Your task to perform on an android device: turn on bluetooth scan Image 0: 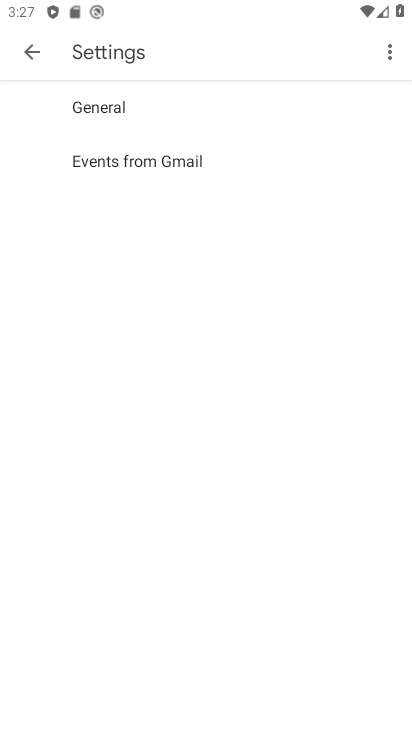
Step 0: press home button
Your task to perform on an android device: turn on bluetooth scan Image 1: 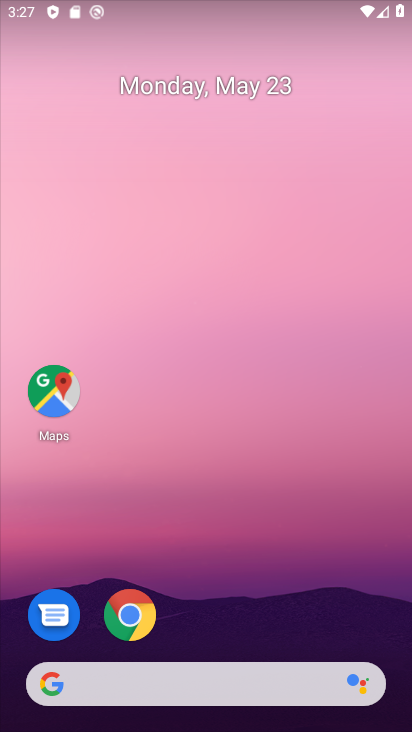
Step 1: drag from (348, 631) to (362, 192)
Your task to perform on an android device: turn on bluetooth scan Image 2: 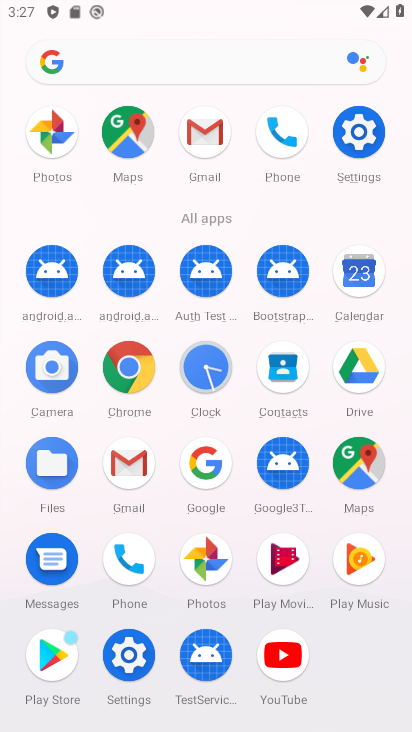
Step 2: click (359, 139)
Your task to perform on an android device: turn on bluetooth scan Image 3: 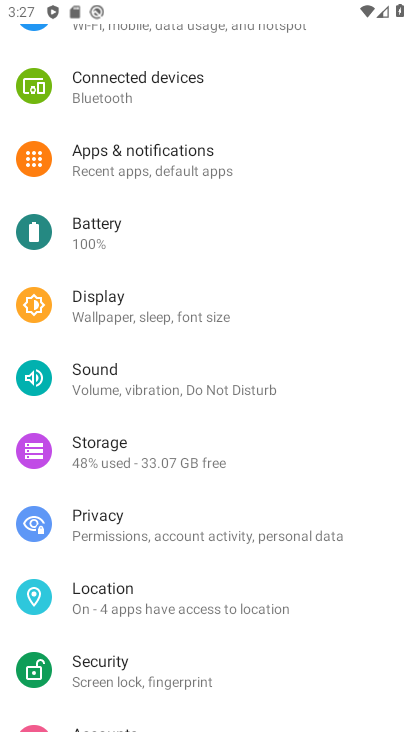
Step 3: drag from (352, 238) to (356, 383)
Your task to perform on an android device: turn on bluetooth scan Image 4: 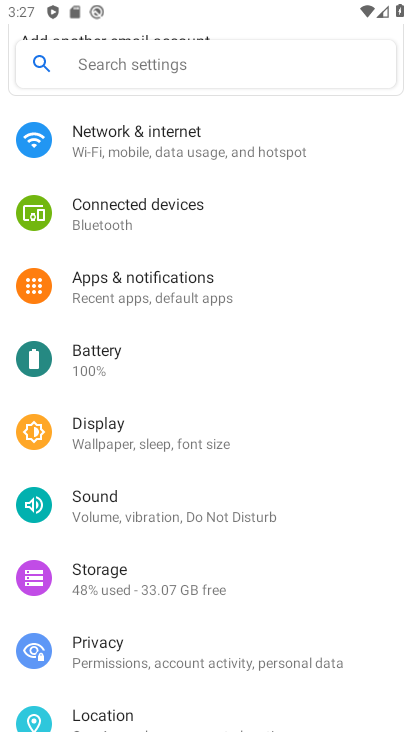
Step 4: drag from (359, 252) to (357, 422)
Your task to perform on an android device: turn on bluetooth scan Image 5: 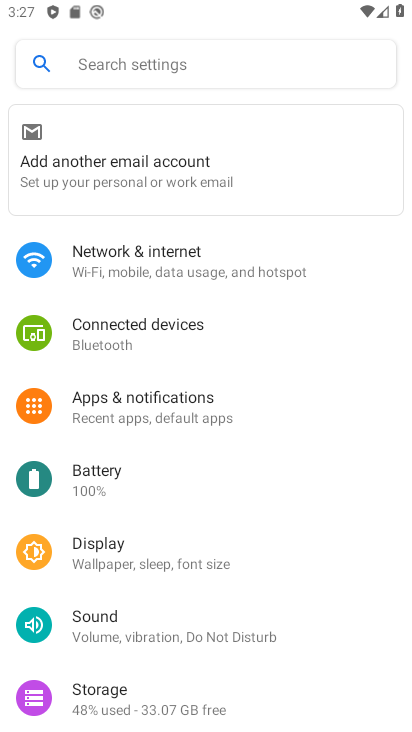
Step 5: drag from (366, 317) to (348, 490)
Your task to perform on an android device: turn on bluetooth scan Image 6: 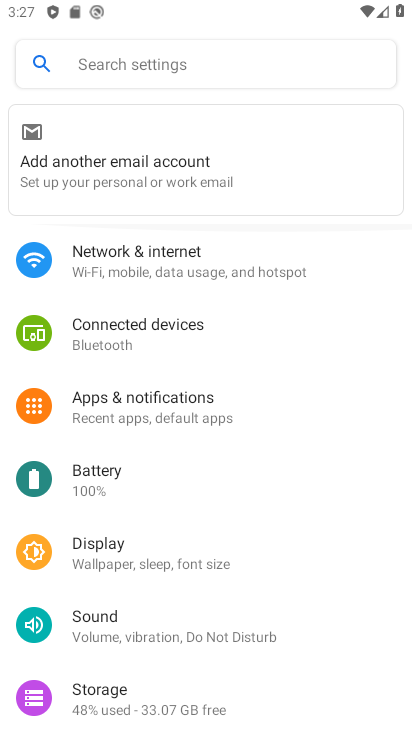
Step 6: drag from (377, 615) to (374, 479)
Your task to perform on an android device: turn on bluetooth scan Image 7: 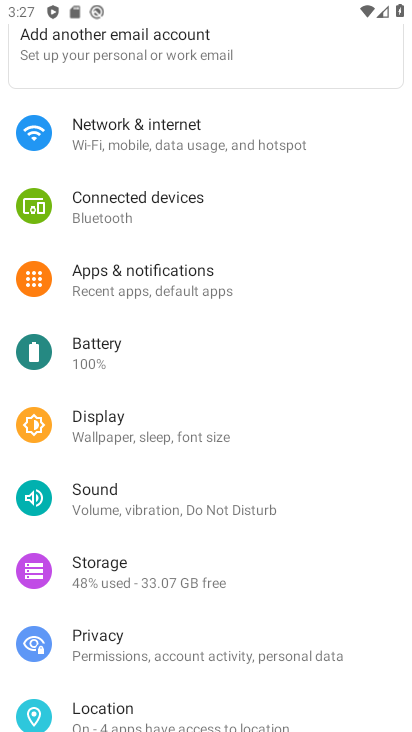
Step 7: drag from (369, 596) to (358, 454)
Your task to perform on an android device: turn on bluetooth scan Image 8: 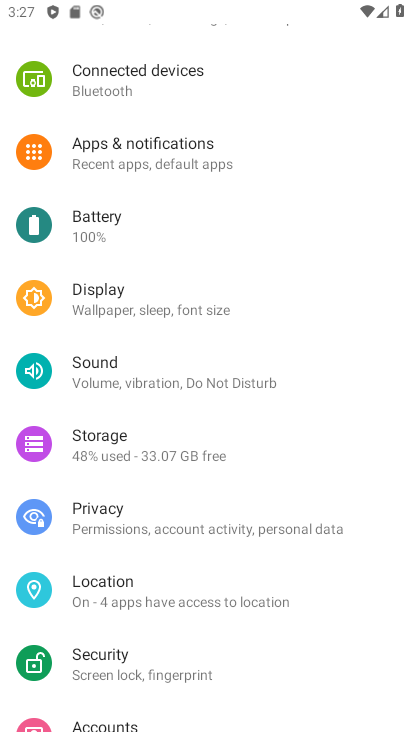
Step 8: drag from (350, 624) to (357, 491)
Your task to perform on an android device: turn on bluetooth scan Image 9: 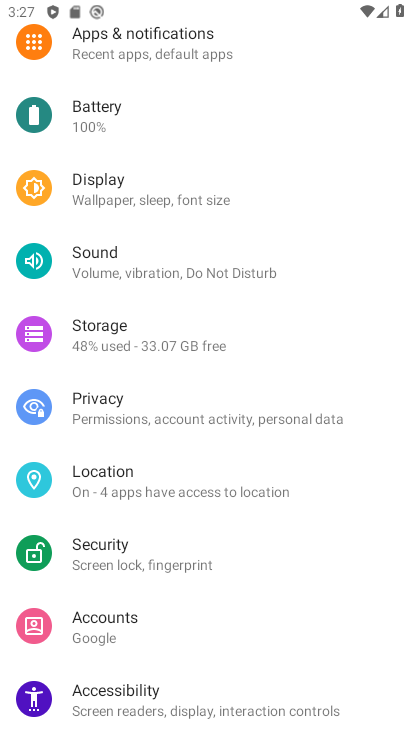
Step 9: drag from (353, 659) to (360, 514)
Your task to perform on an android device: turn on bluetooth scan Image 10: 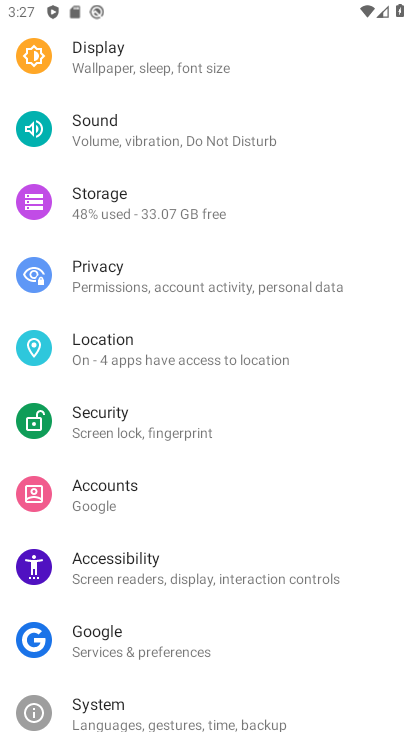
Step 10: drag from (363, 666) to (354, 538)
Your task to perform on an android device: turn on bluetooth scan Image 11: 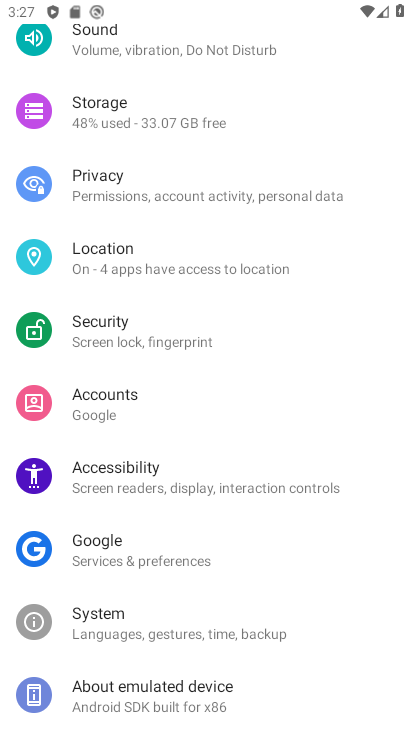
Step 11: drag from (364, 658) to (363, 531)
Your task to perform on an android device: turn on bluetooth scan Image 12: 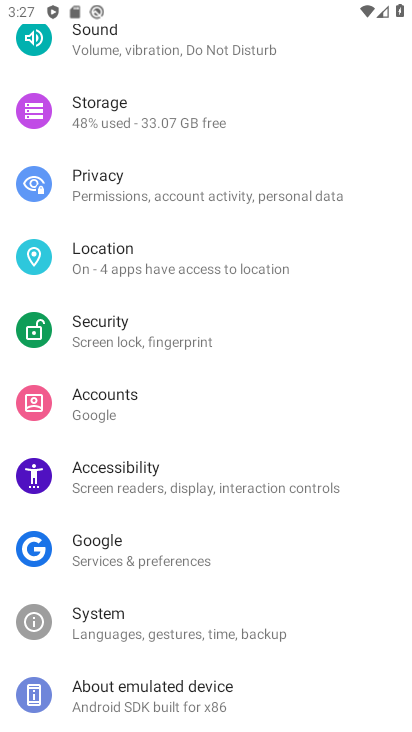
Step 12: drag from (330, 357) to (331, 463)
Your task to perform on an android device: turn on bluetooth scan Image 13: 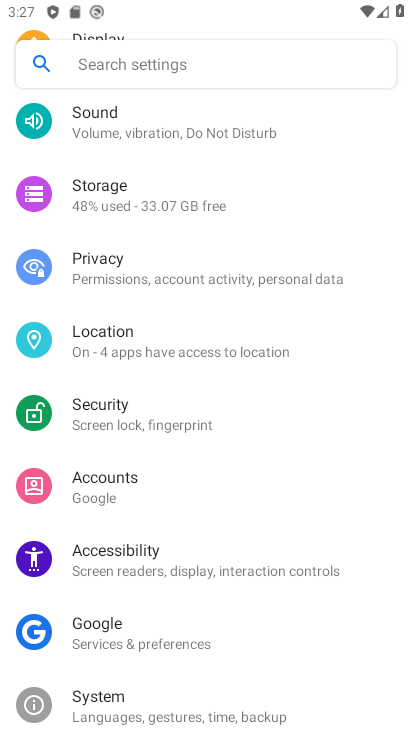
Step 13: click (275, 357)
Your task to perform on an android device: turn on bluetooth scan Image 14: 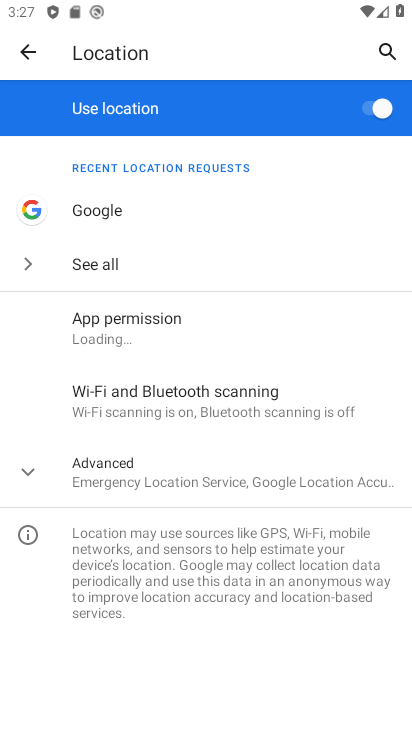
Step 14: click (243, 411)
Your task to perform on an android device: turn on bluetooth scan Image 15: 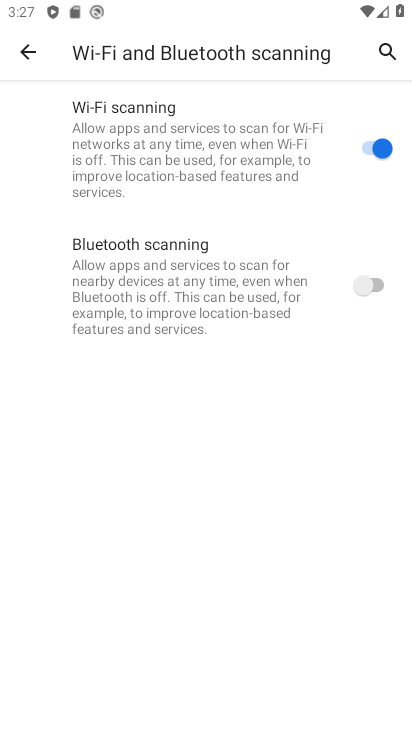
Step 15: click (357, 292)
Your task to perform on an android device: turn on bluetooth scan Image 16: 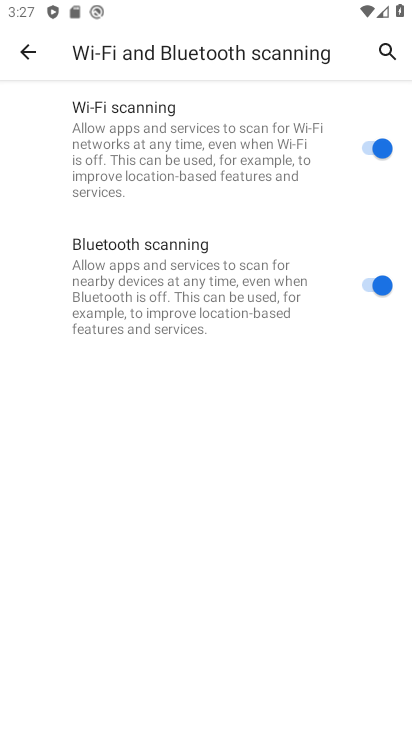
Step 16: task complete